Your task to perform on an android device: Show me popular videos on Youtube Image 0: 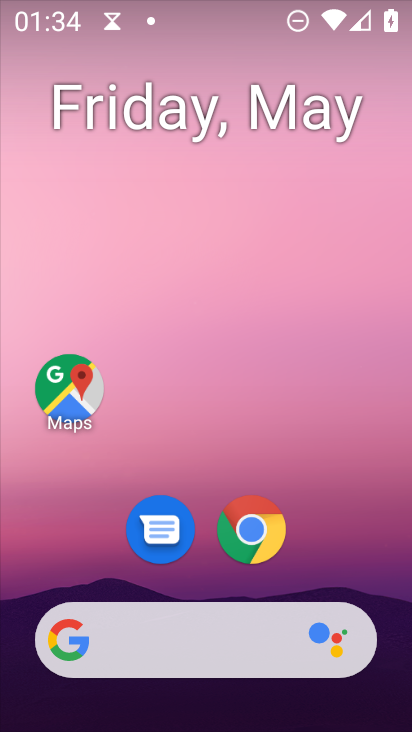
Step 0: drag from (241, 547) to (225, 205)
Your task to perform on an android device: Show me popular videos on Youtube Image 1: 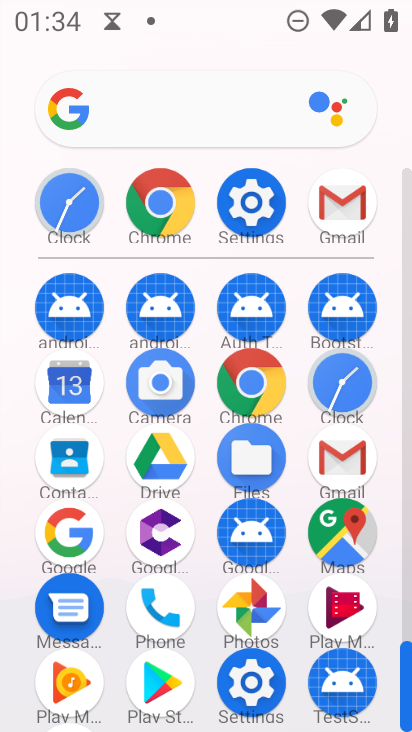
Step 1: drag from (278, 607) to (311, 193)
Your task to perform on an android device: Show me popular videos on Youtube Image 2: 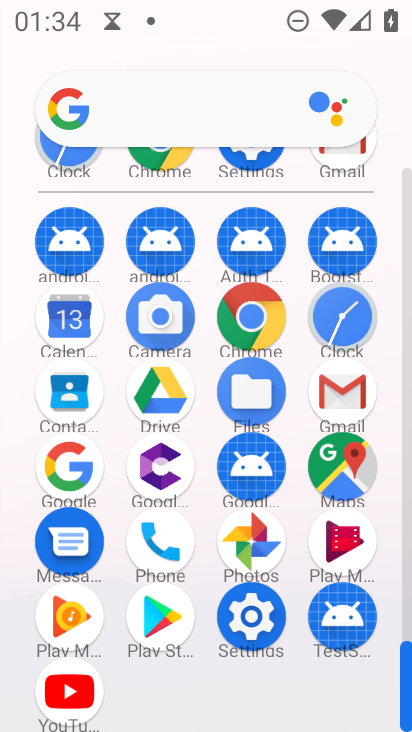
Step 2: click (52, 656)
Your task to perform on an android device: Show me popular videos on Youtube Image 3: 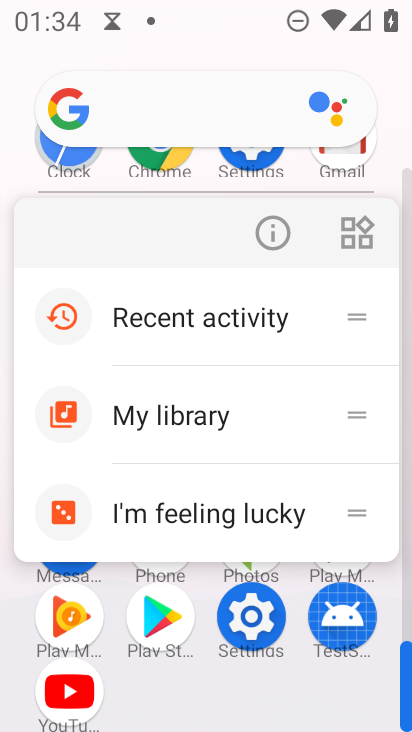
Step 3: click (67, 694)
Your task to perform on an android device: Show me popular videos on Youtube Image 4: 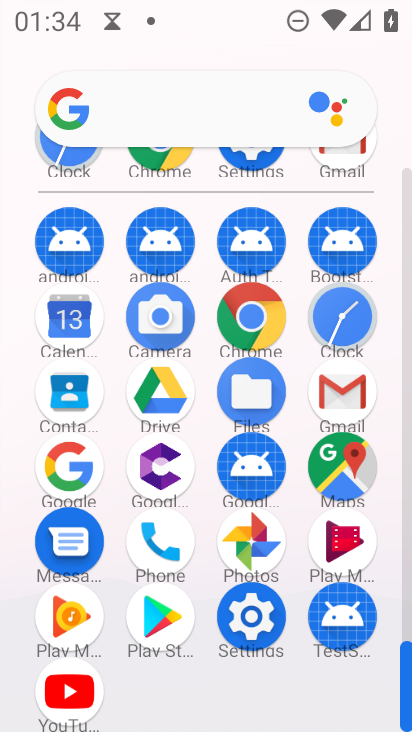
Step 4: click (73, 690)
Your task to perform on an android device: Show me popular videos on Youtube Image 5: 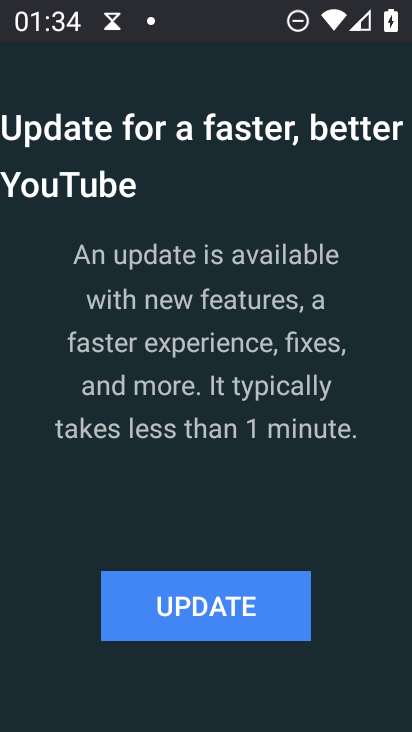
Step 5: task complete